Your task to perform on an android device: change notification settings in the gmail app Image 0: 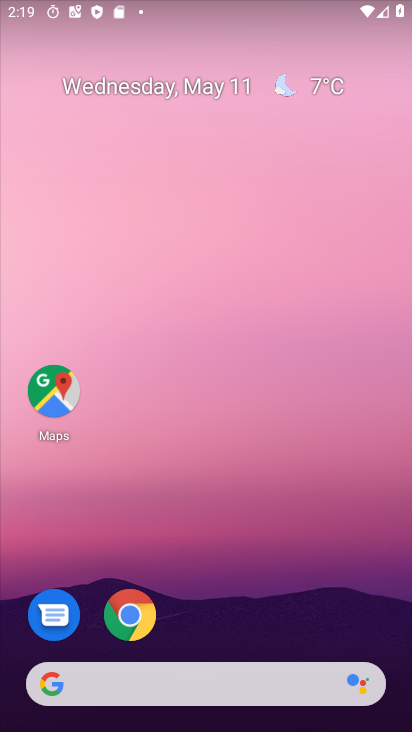
Step 0: drag from (144, 680) to (110, 119)
Your task to perform on an android device: change notification settings in the gmail app Image 1: 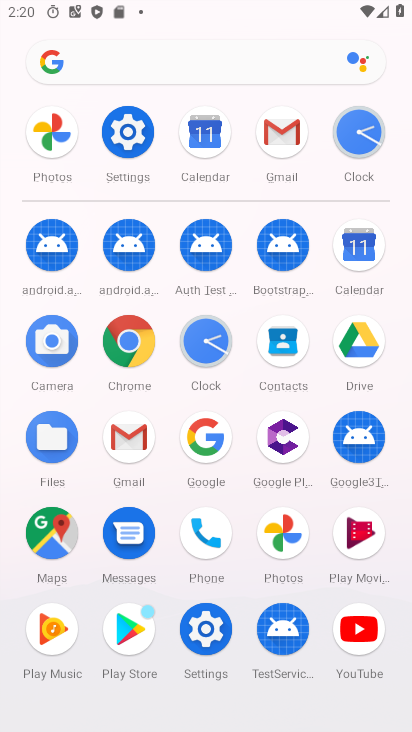
Step 1: click (138, 446)
Your task to perform on an android device: change notification settings in the gmail app Image 2: 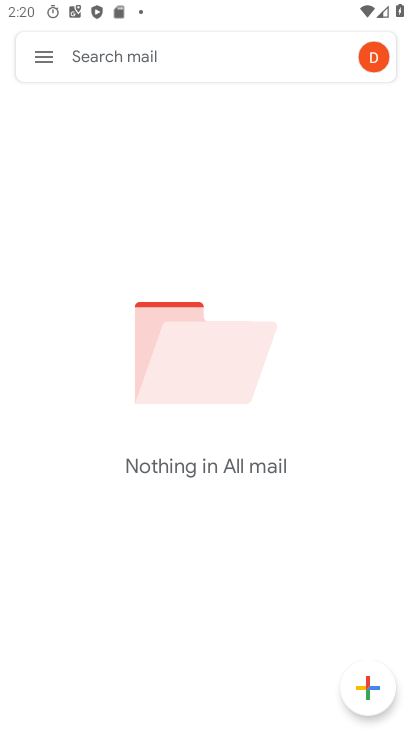
Step 2: click (37, 55)
Your task to perform on an android device: change notification settings in the gmail app Image 3: 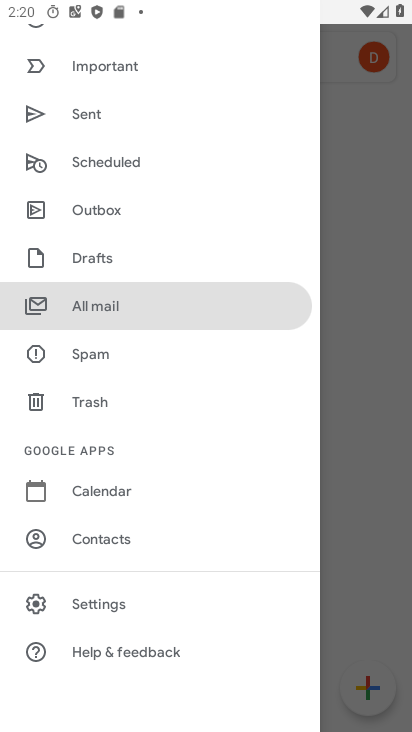
Step 3: click (99, 601)
Your task to perform on an android device: change notification settings in the gmail app Image 4: 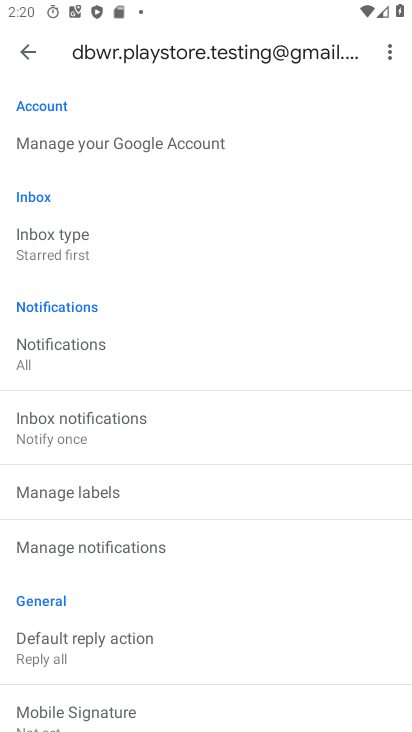
Step 4: click (107, 544)
Your task to perform on an android device: change notification settings in the gmail app Image 5: 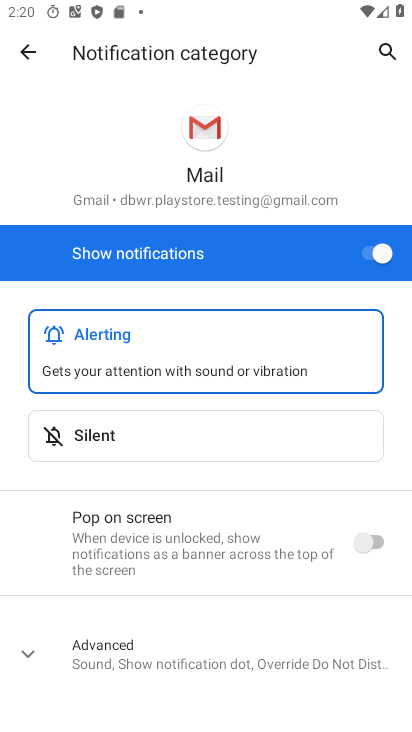
Step 5: click (379, 248)
Your task to perform on an android device: change notification settings in the gmail app Image 6: 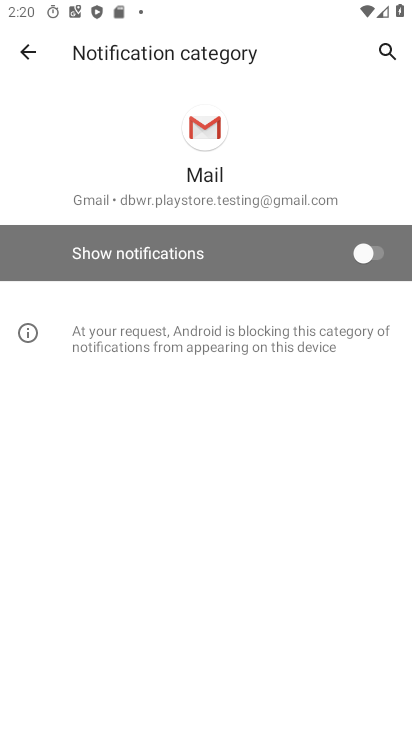
Step 6: task complete